Your task to perform on an android device: What's the weather going to be this weekend? Image 0: 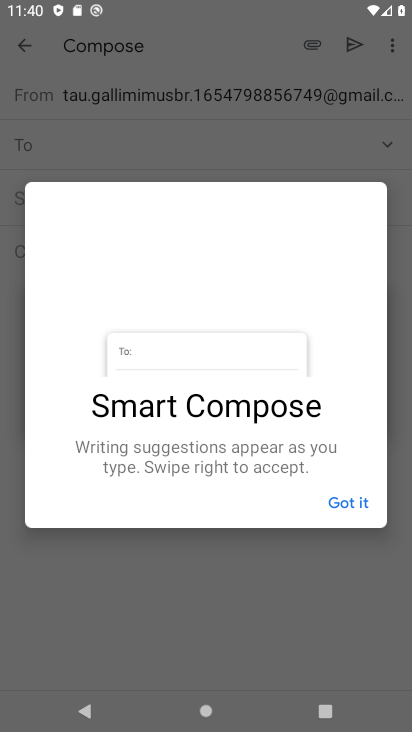
Step 0: press home button
Your task to perform on an android device: What's the weather going to be this weekend? Image 1: 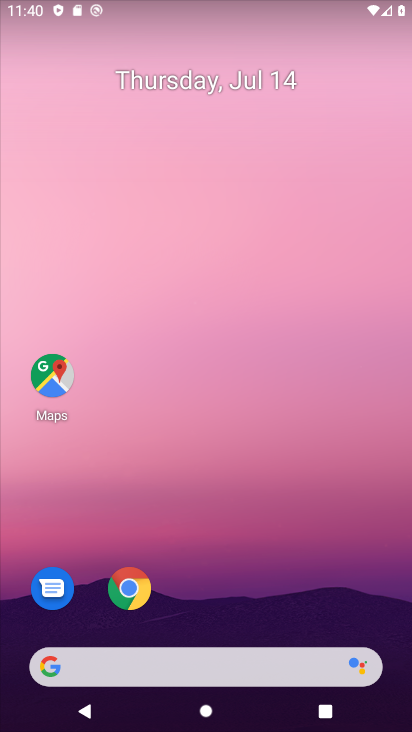
Step 1: click (212, 672)
Your task to perform on an android device: What's the weather going to be this weekend? Image 2: 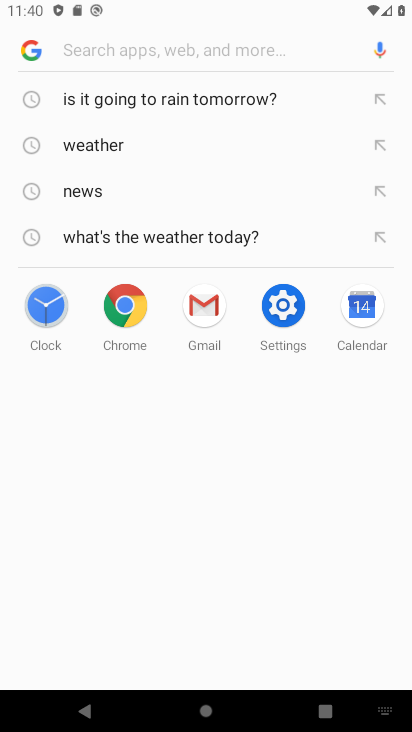
Step 2: type "What's the weather going to be this weekend?"
Your task to perform on an android device: What's the weather going to be this weekend? Image 3: 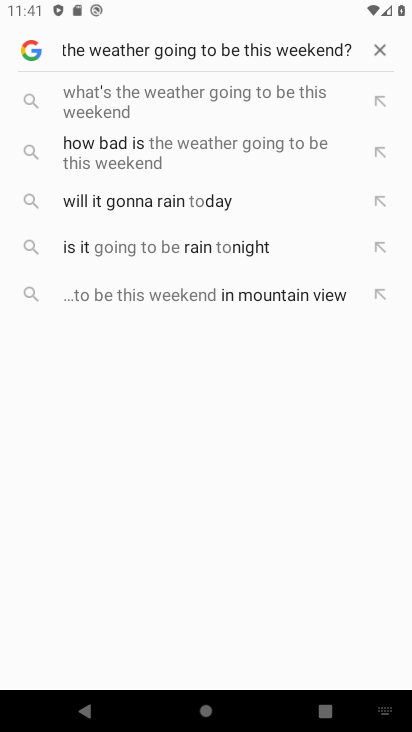
Step 3: press enter
Your task to perform on an android device: What's the weather going to be this weekend? Image 4: 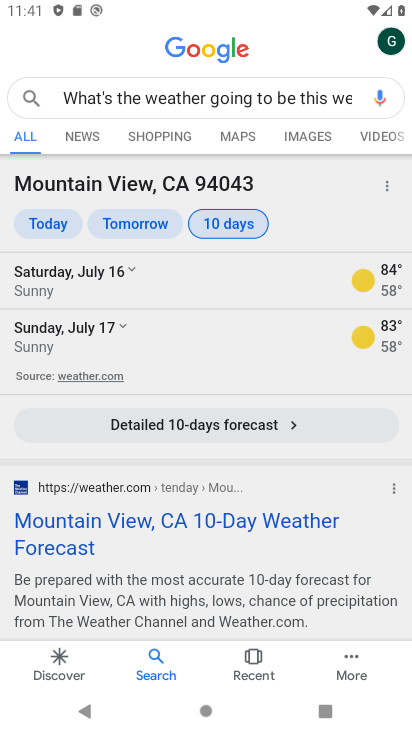
Step 4: task complete